Your task to perform on an android device: Open display settings Image 0: 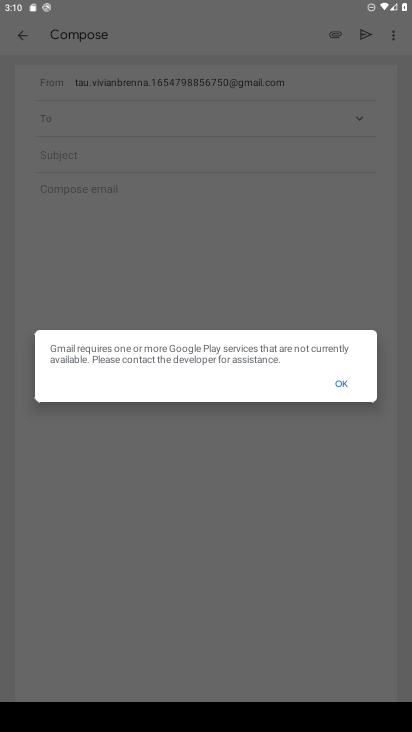
Step 0: press home button
Your task to perform on an android device: Open display settings Image 1: 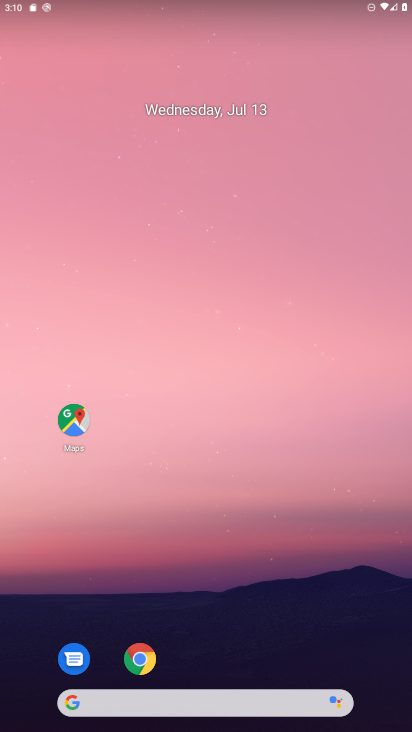
Step 1: drag from (382, 612) to (322, 230)
Your task to perform on an android device: Open display settings Image 2: 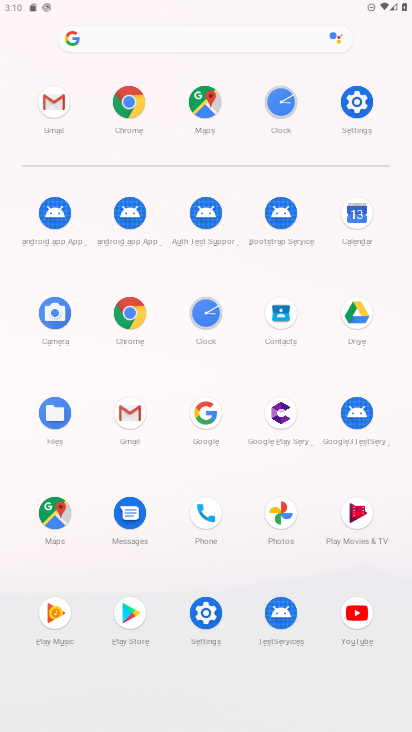
Step 2: click (206, 615)
Your task to perform on an android device: Open display settings Image 3: 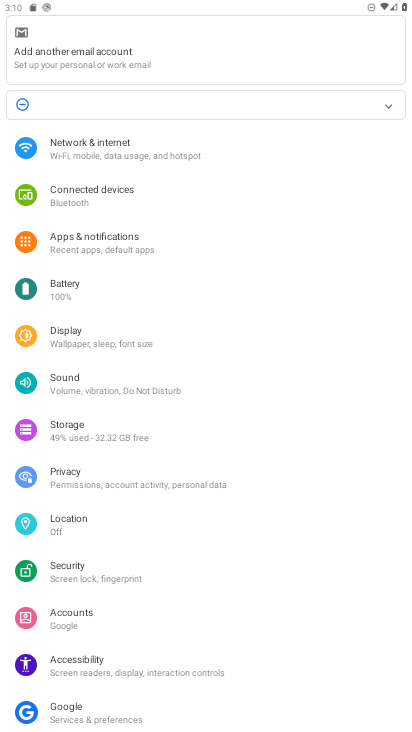
Step 3: click (54, 337)
Your task to perform on an android device: Open display settings Image 4: 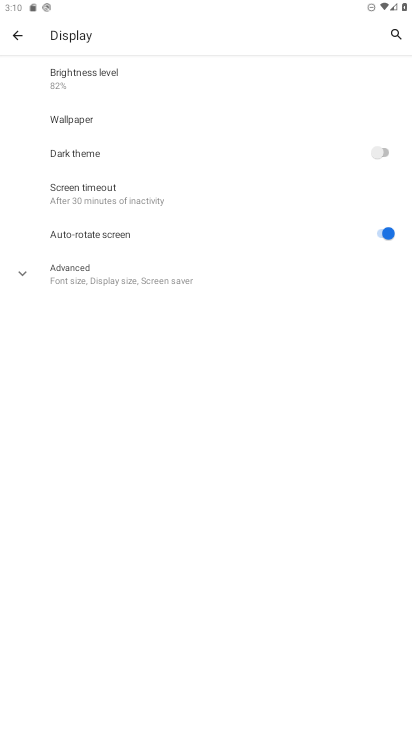
Step 4: click (19, 273)
Your task to perform on an android device: Open display settings Image 5: 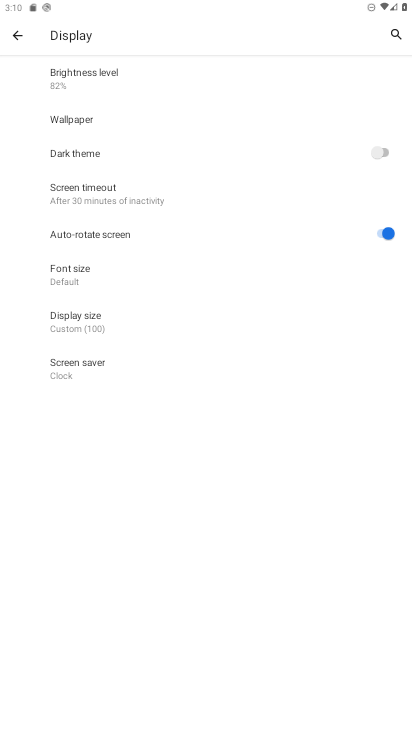
Step 5: task complete